Your task to perform on an android device: Check the settings for the Pandora app Image 0: 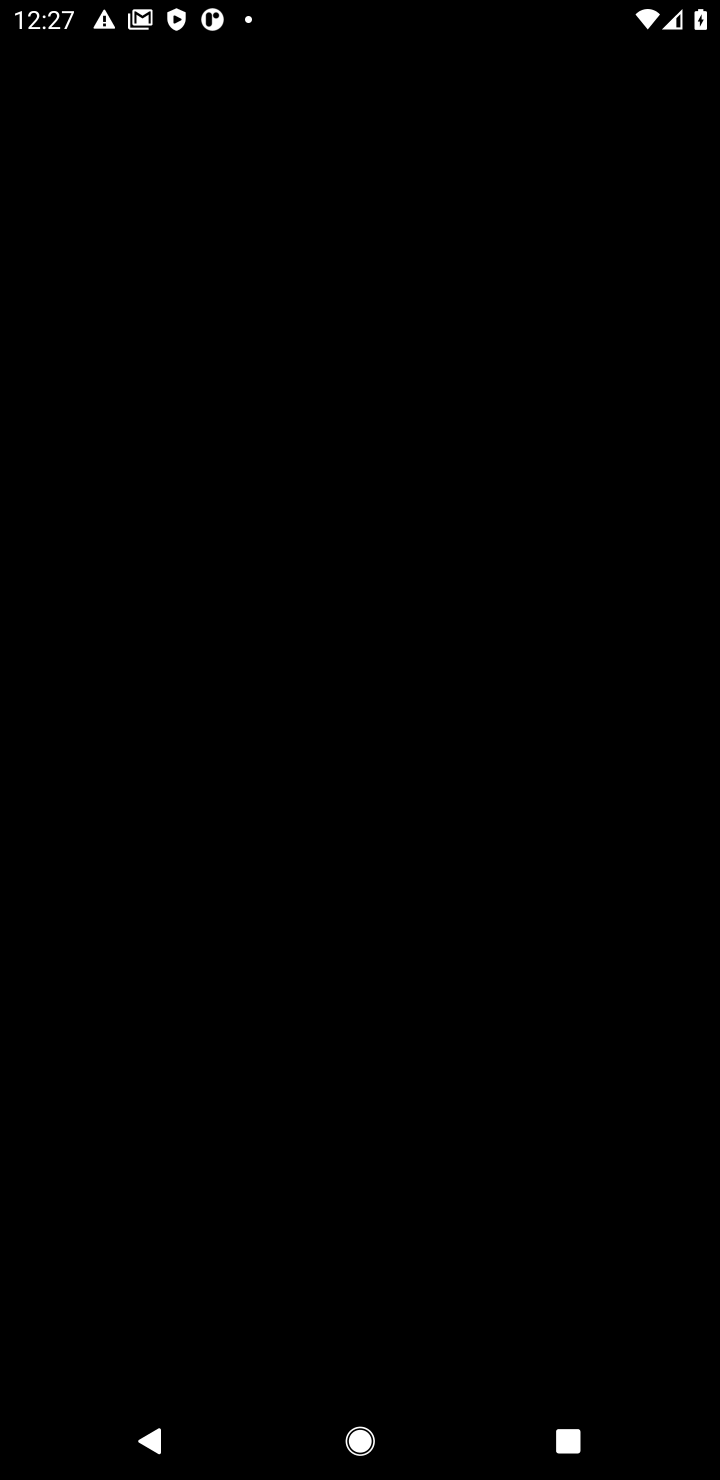
Step 0: press home button
Your task to perform on an android device: Check the settings for the Pandora app Image 1: 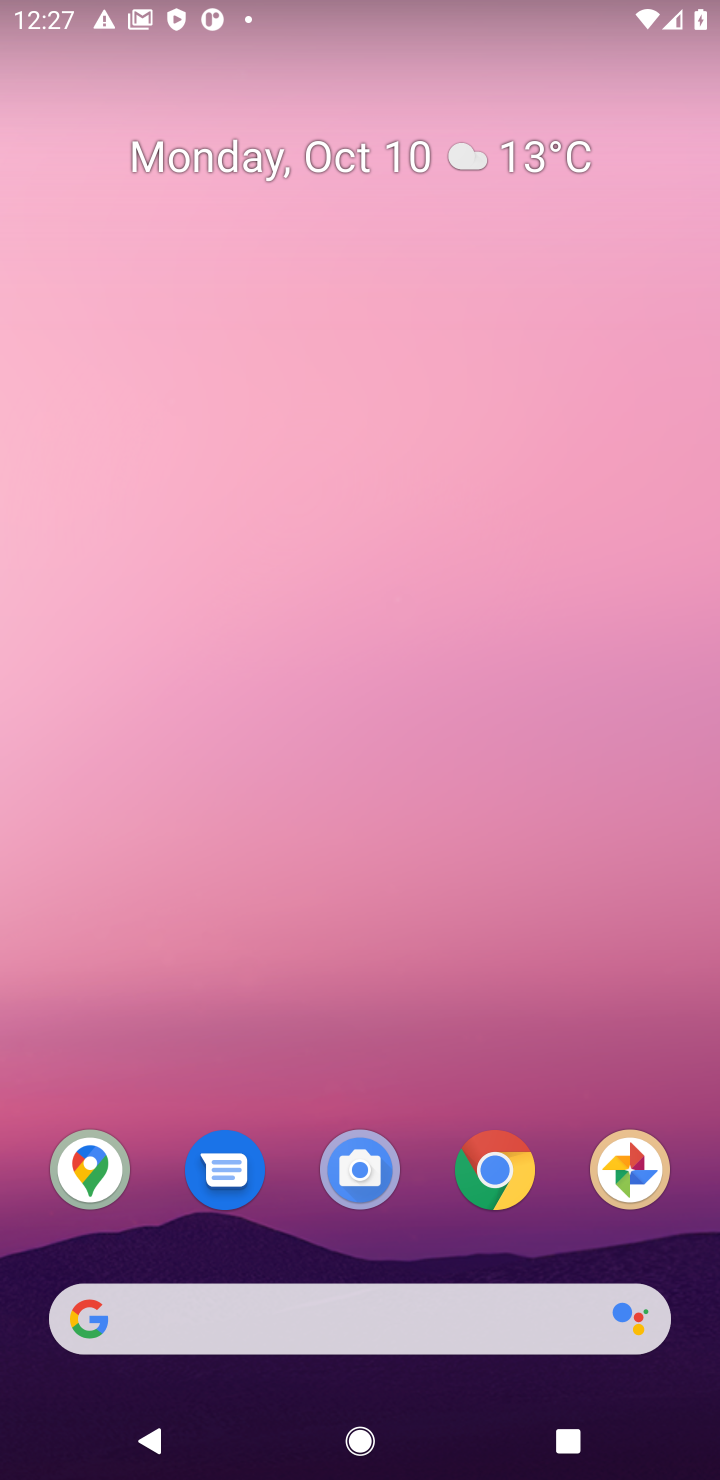
Step 1: drag from (340, 1318) to (366, 427)
Your task to perform on an android device: Check the settings for the Pandora app Image 2: 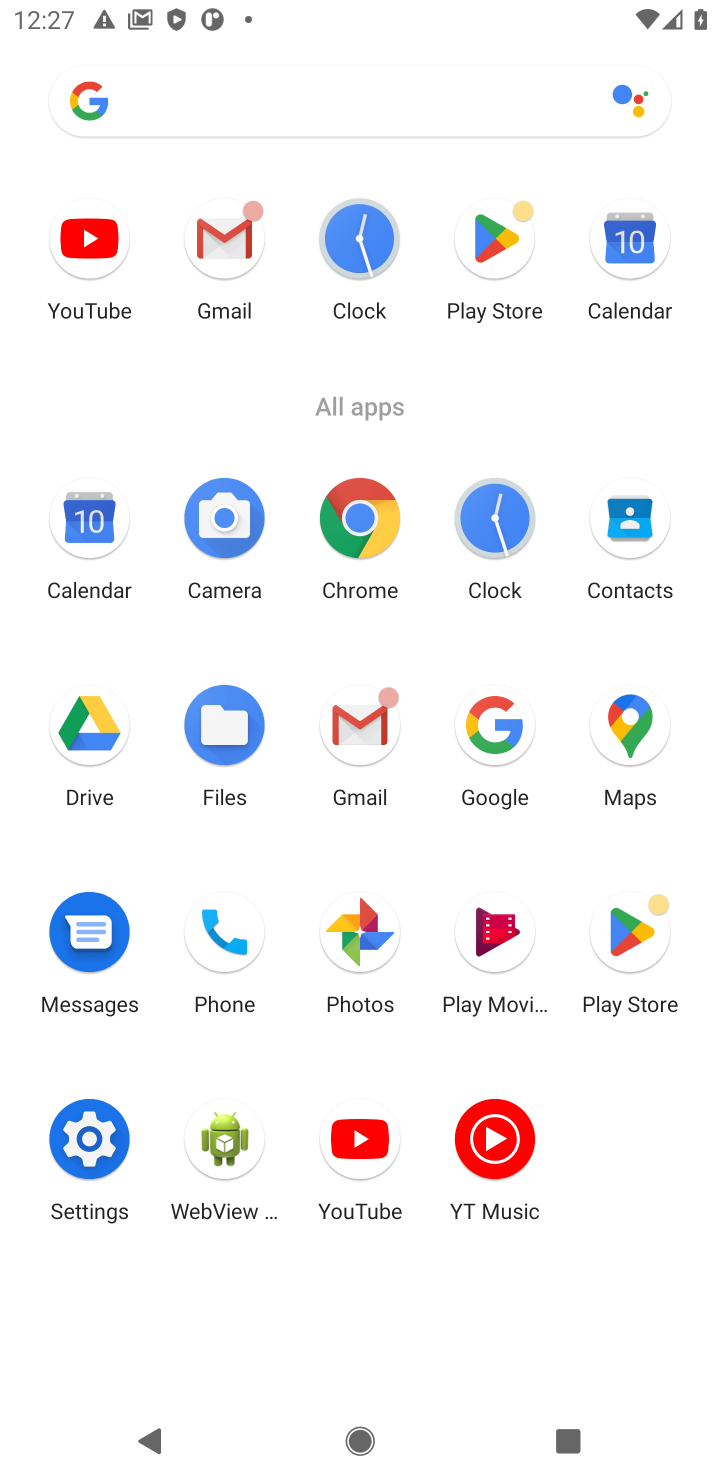
Step 2: click (487, 232)
Your task to perform on an android device: Check the settings for the Pandora app Image 3: 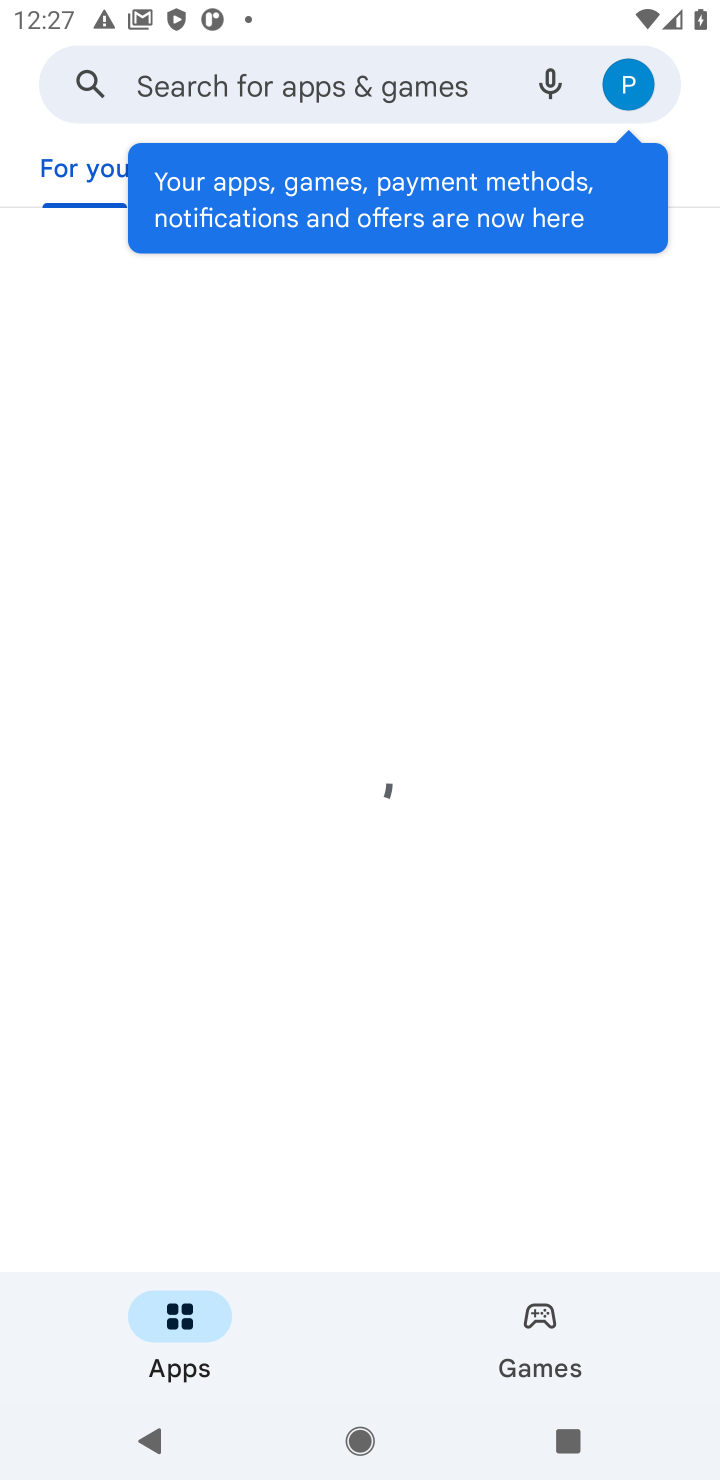
Step 3: click (488, 77)
Your task to perform on an android device: Check the settings for the Pandora app Image 4: 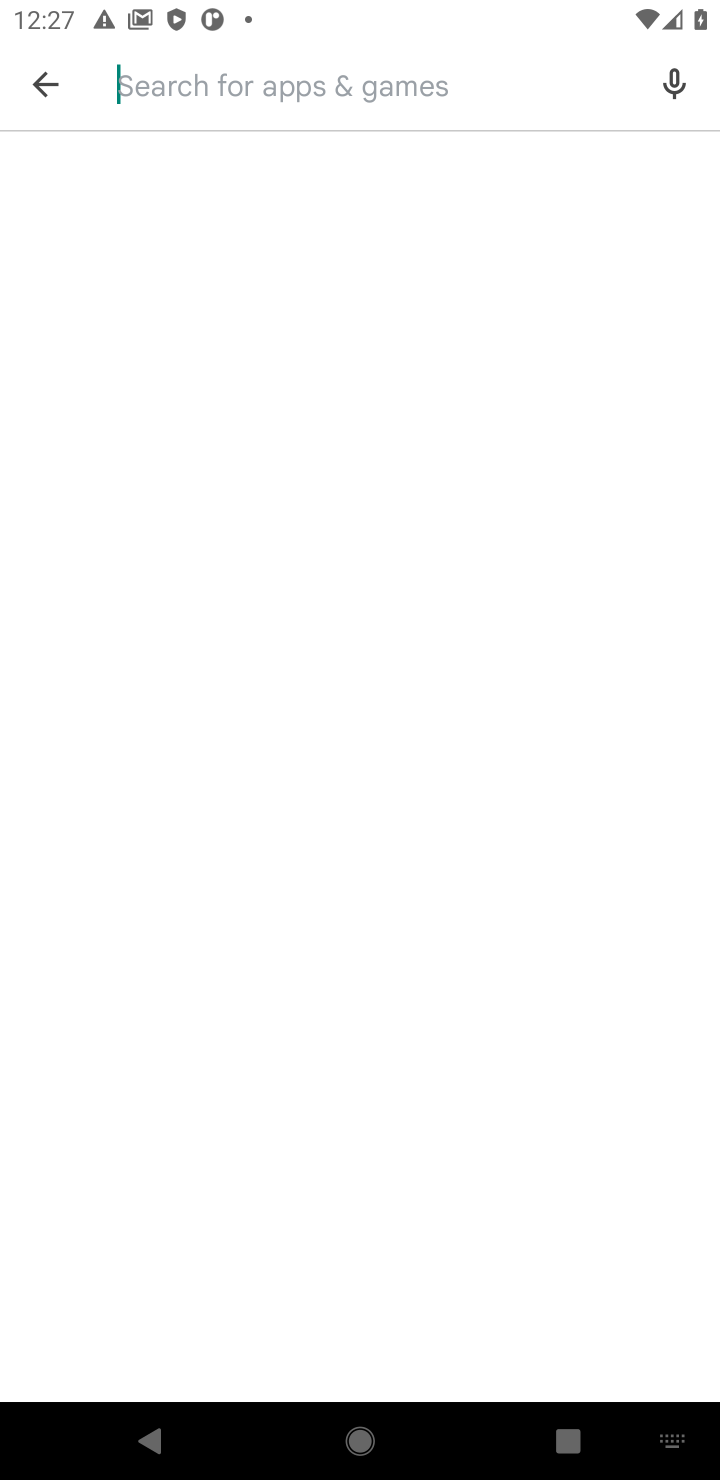
Step 4: type "Pandora app"
Your task to perform on an android device: Check the settings for the Pandora app Image 5: 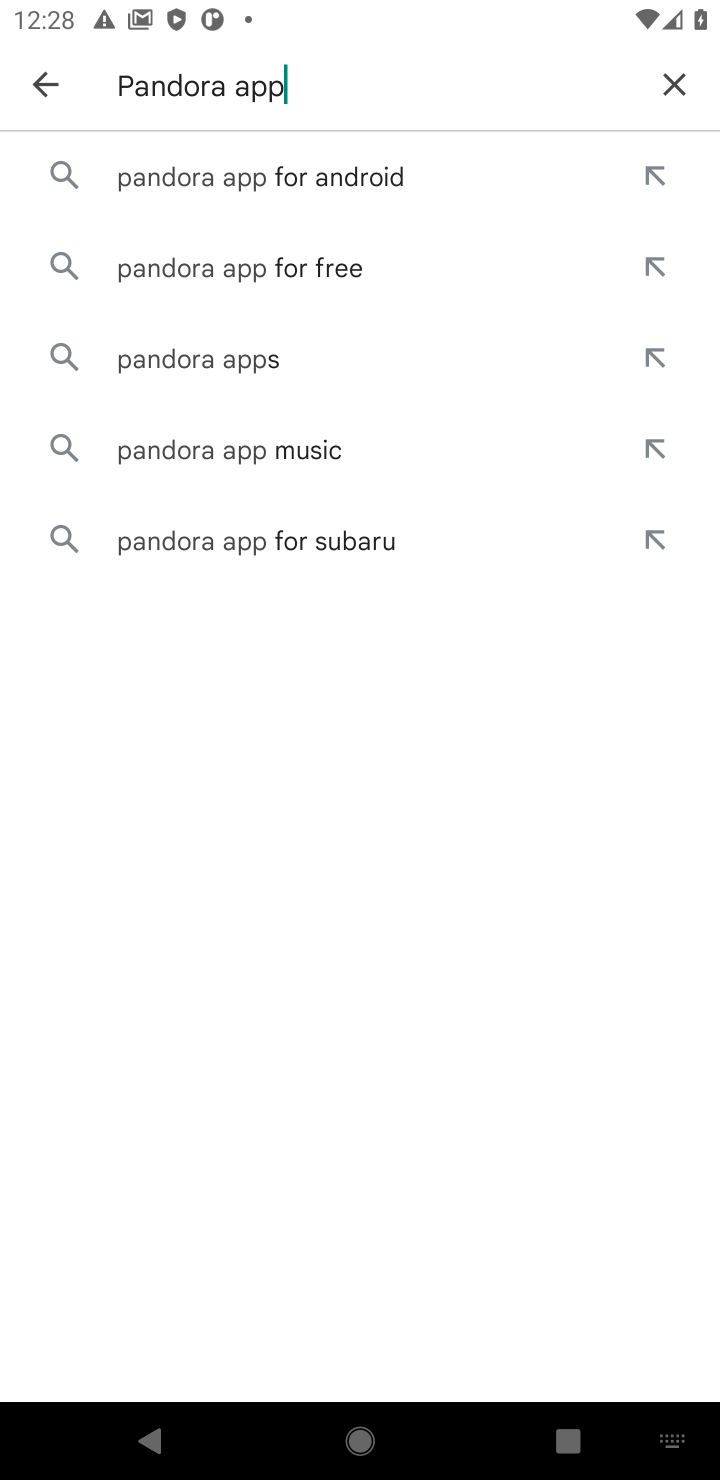
Step 5: click (219, 189)
Your task to perform on an android device: Check the settings for the Pandora app Image 6: 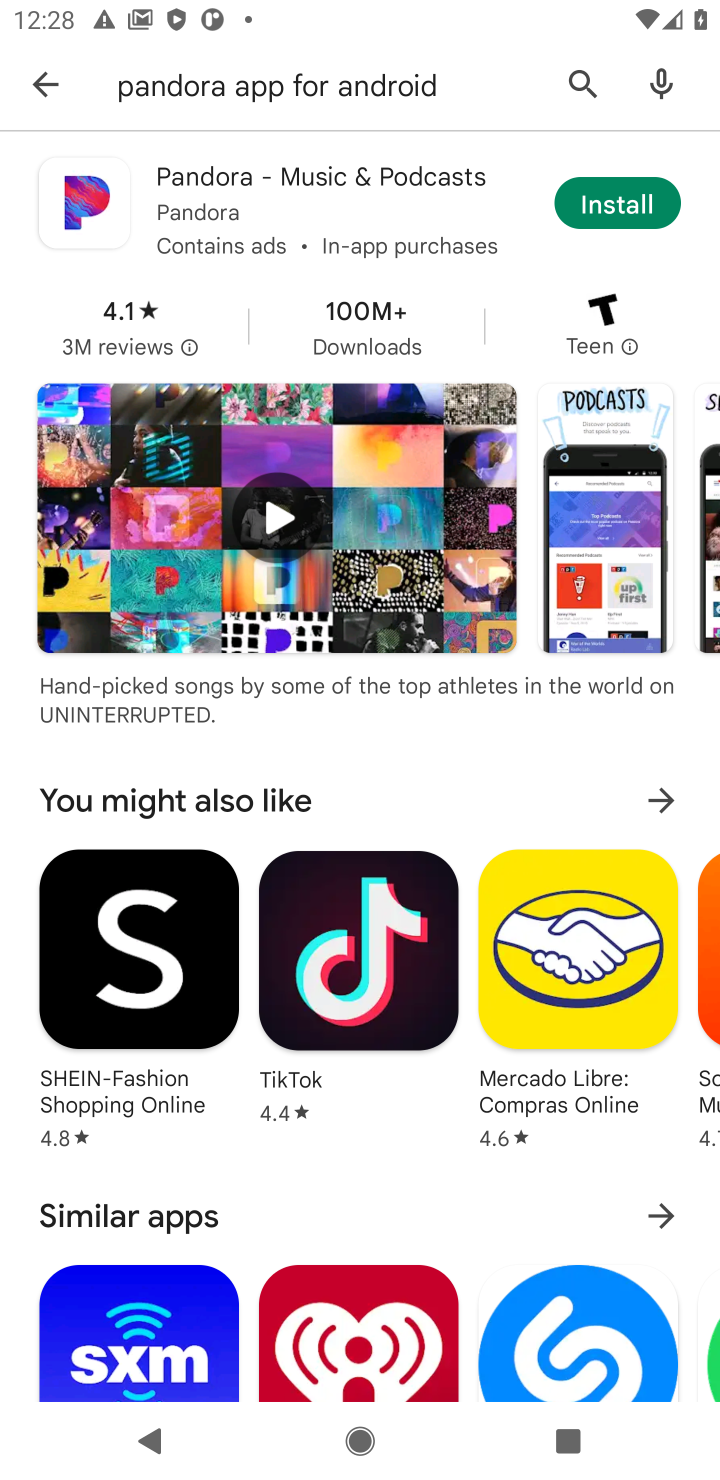
Step 6: task complete